Your task to perform on an android device: What's the weather going to be tomorrow? Image 0: 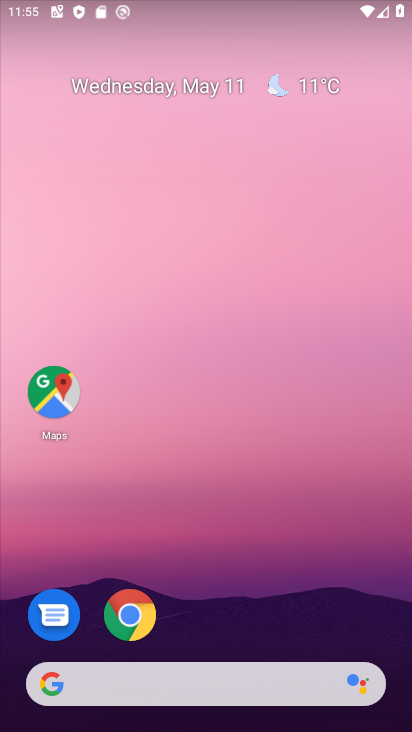
Step 0: click (332, 84)
Your task to perform on an android device: What's the weather going to be tomorrow? Image 1: 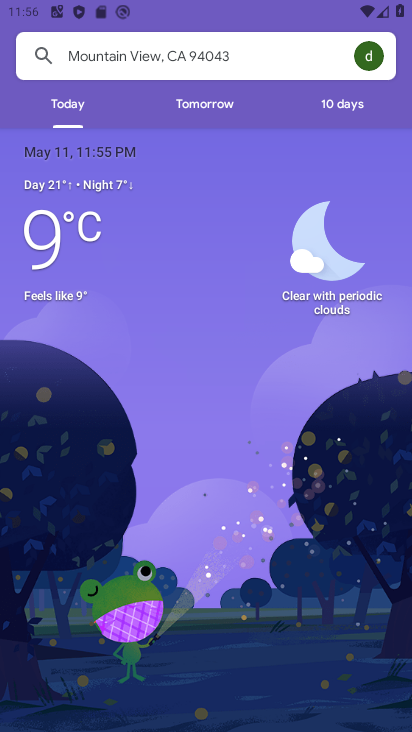
Step 1: click (214, 102)
Your task to perform on an android device: What's the weather going to be tomorrow? Image 2: 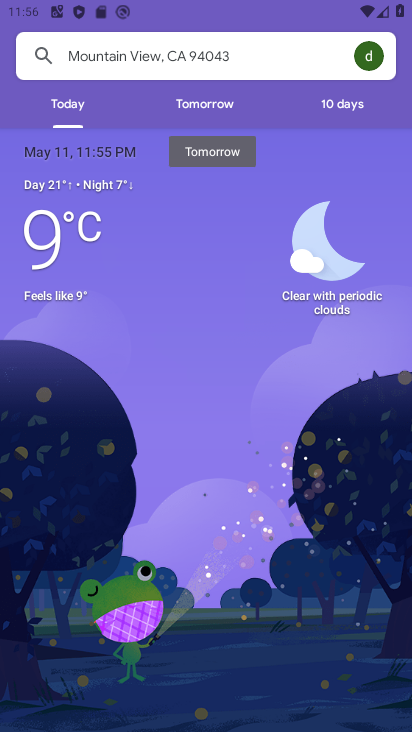
Step 2: click (214, 102)
Your task to perform on an android device: What's the weather going to be tomorrow? Image 3: 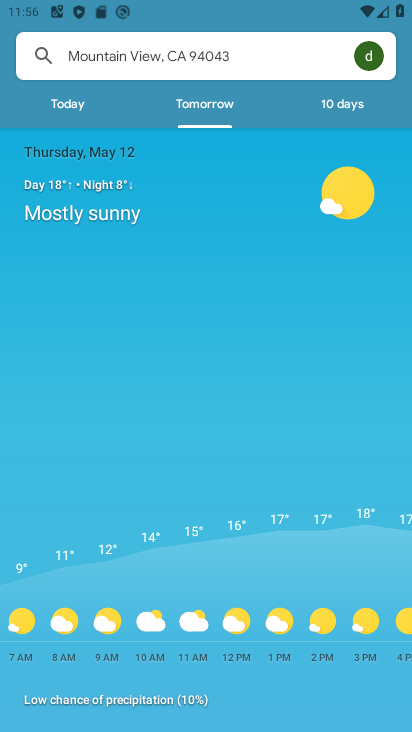
Step 3: task complete